Your task to perform on an android device: Open internet settings Image 0: 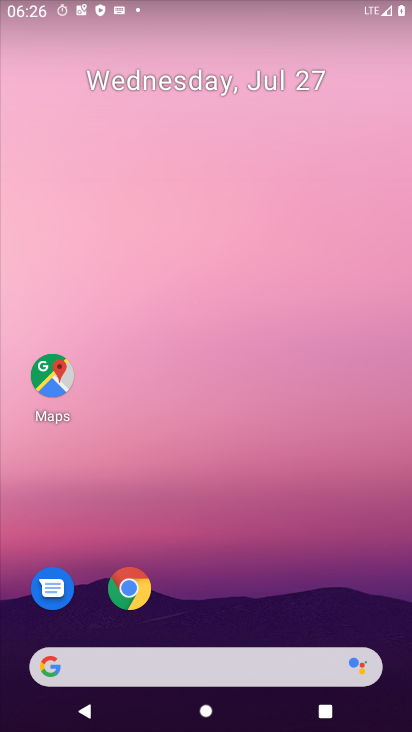
Step 0: drag from (197, 679) to (209, 174)
Your task to perform on an android device: Open internet settings Image 1: 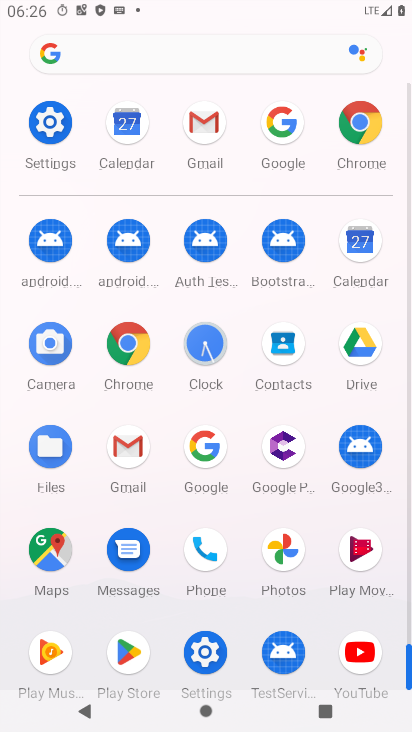
Step 1: click (38, 117)
Your task to perform on an android device: Open internet settings Image 2: 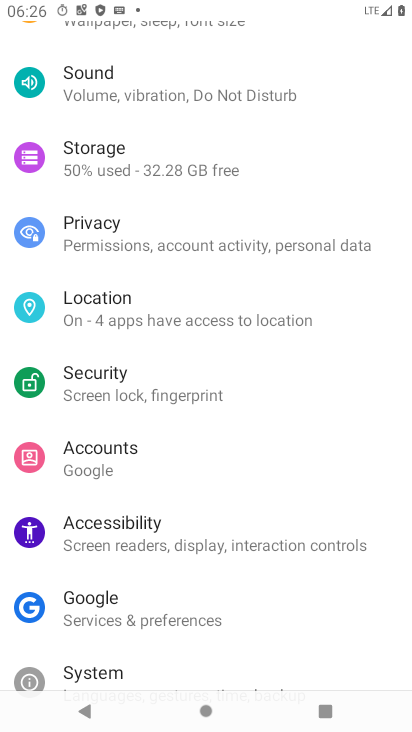
Step 2: drag from (248, 415) to (147, 727)
Your task to perform on an android device: Open internet settings Image 3: 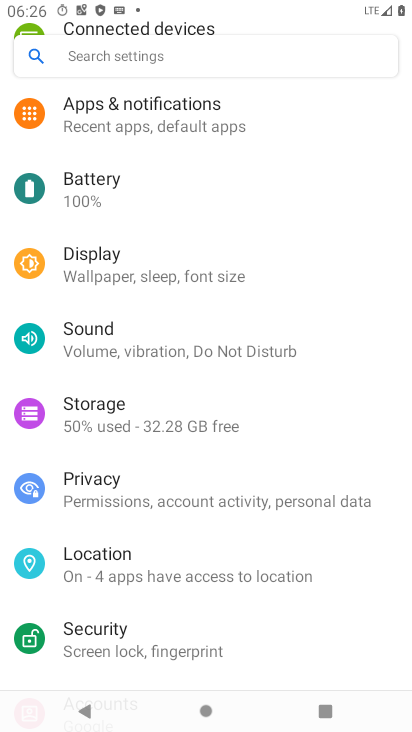
Step 3: drag from (230, 299) to (207, 649)
Your task to perform on an android device: Open internet settings Image 4: 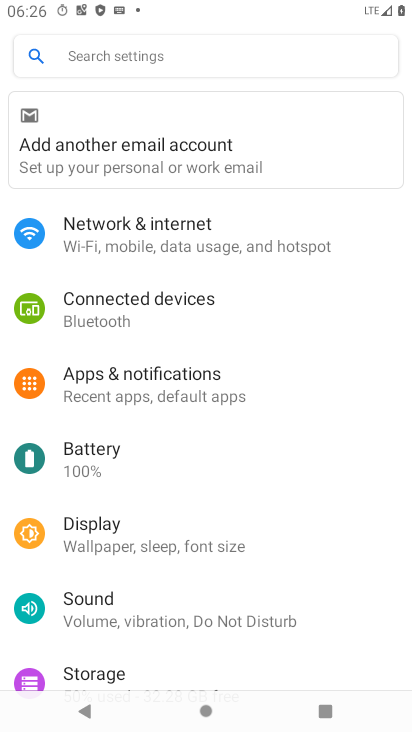
Step 4: click (198, 231)
Your task to perform on an android device: Open internet settings Image 5: 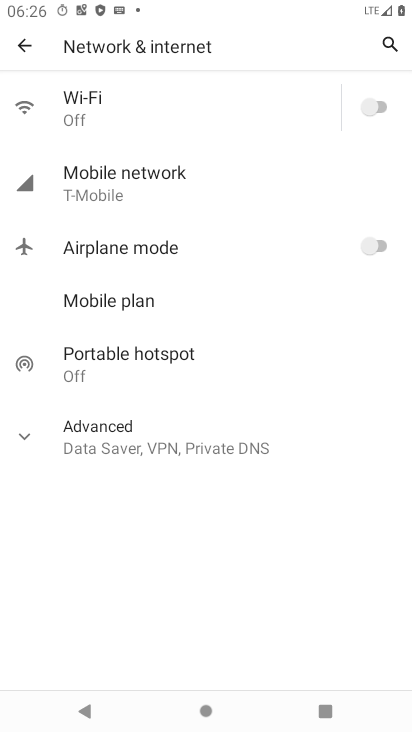
Step 5: task complete